Your task to perform on an android device: empty trash in the gmail app Image 0: 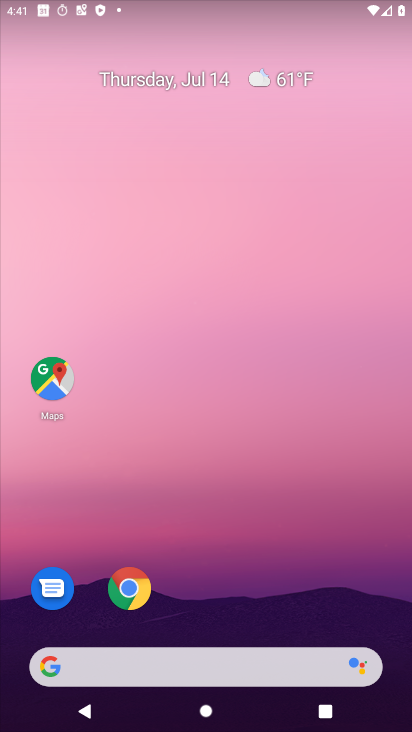
Step 0: drag from (189, 660) to (207, 176)
Your task to perform on an android device: empty trash in the gmail app Image 1: 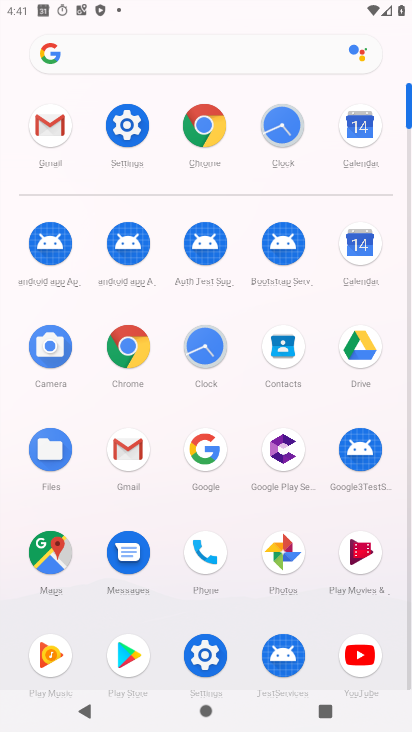
Step 1: click (51, 126)
Your task to perform on an android device: empty trash in the gmail app Image 2: 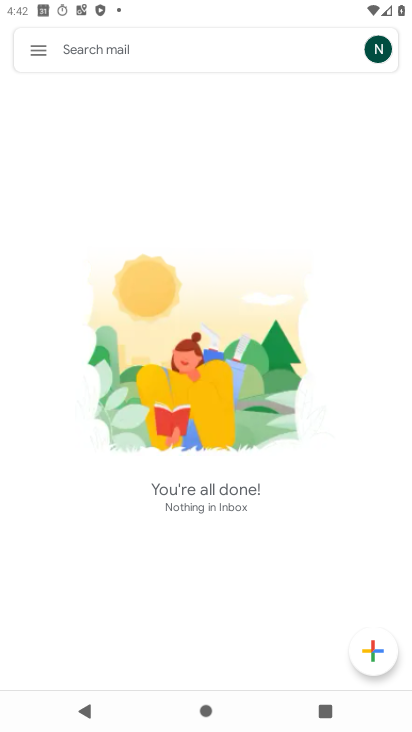
Step 2: click (39, 50)
Your task to perform on an android device: empty trash in the gmail app Image 3: 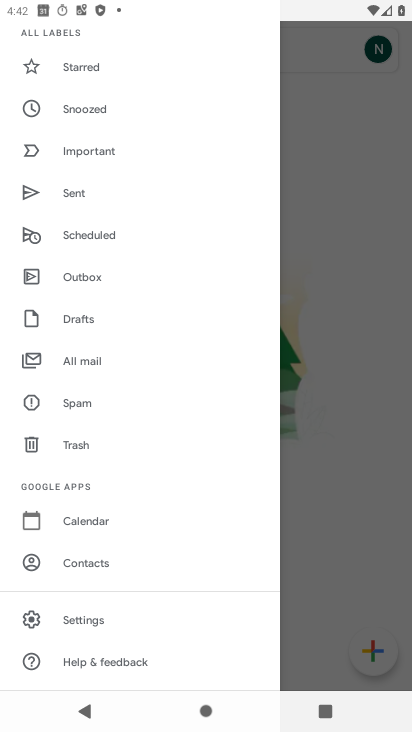
Step 3: click (78, 443)
Your task to perform on an android device: empty trash in the gmail app Image 4: 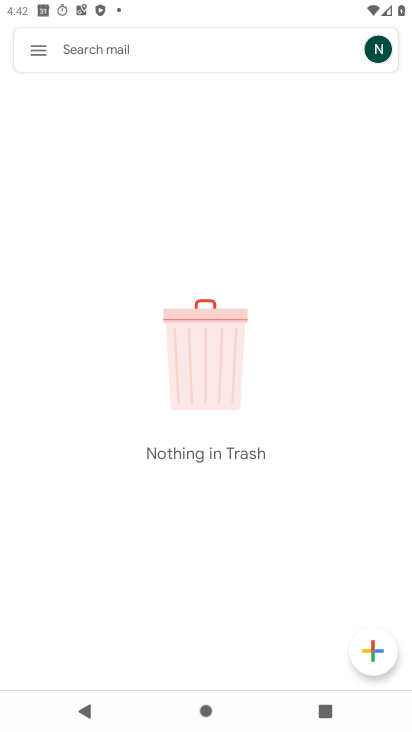
Step 4: task complete